Your task to perform on an android device: check the backup settings in the google photos Image 0: 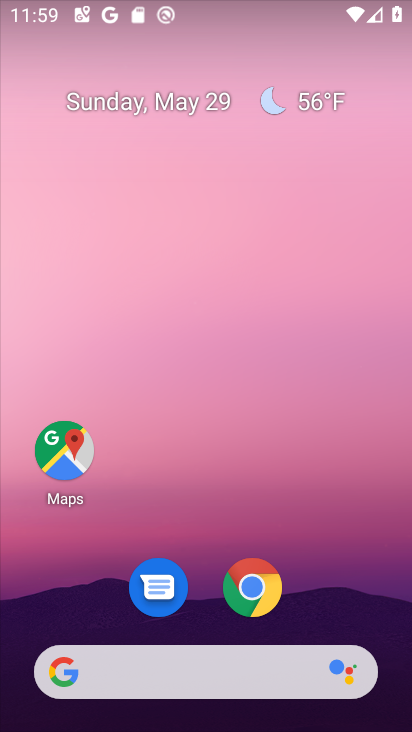
Step 0: drag from (368, 617) to (324, 336)
Your task to perform on an android device: check the backup settings in the google photos Image 1: 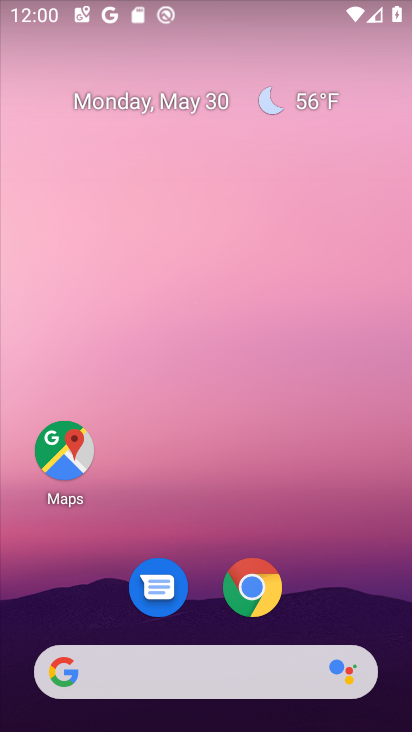
Step 1: drag from (354, 634) to (279, 231)
Your task to perform on an android device: check the backup settings in the google photos Image 2: 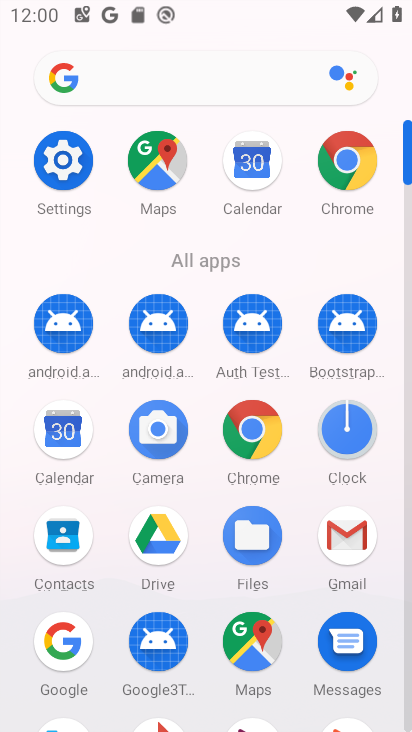
Step 2: click (405, 668)
Your task to perform on an android device: check the backup settings in the google photos Image 3: 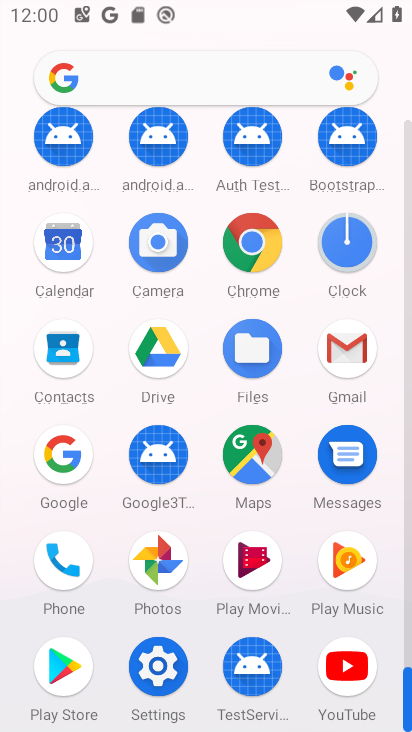
Step 3: click (176, 545)
Your task to perform on an android device: check the backup settings in the google photos Image 4: 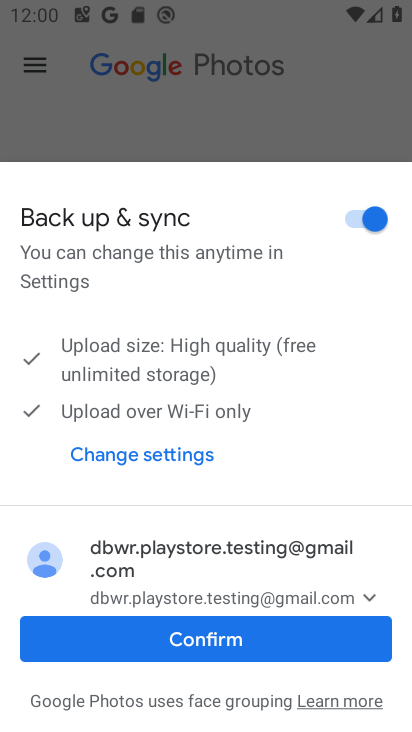
Step 4: click (248, 642)
Your task to perform on an android device: check the backup settings in the google photos Image 5: 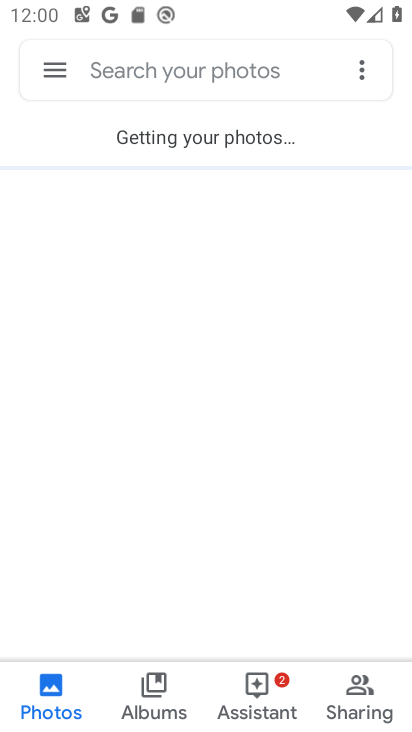
Step 5: click (51, 75)
Your task to perform on an android device: check the backup settings in the google photos Image 6: 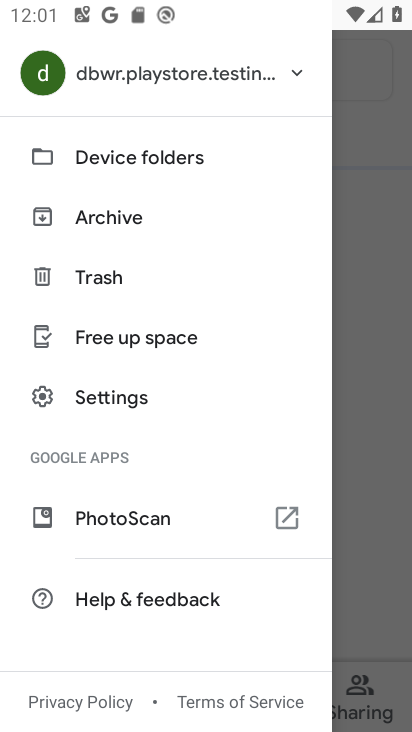
Step 6: click (151, 399)
Your task to perform on an android device: check the backup settings in the google photos Image 7: 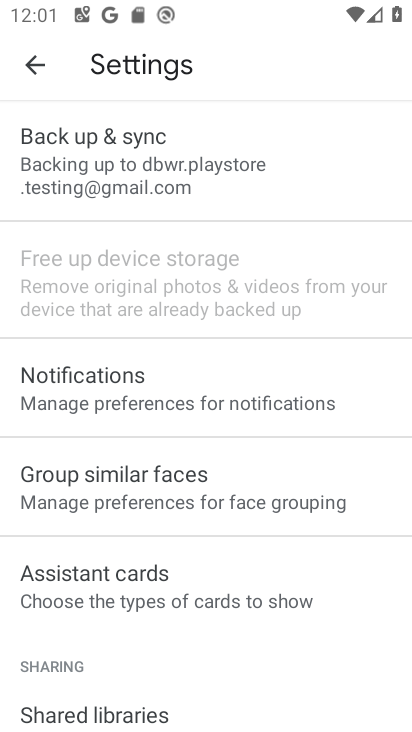
Step 7: click (213, 190)
Your task to perform on an android device: check the backup settings in the google photos Image 8: 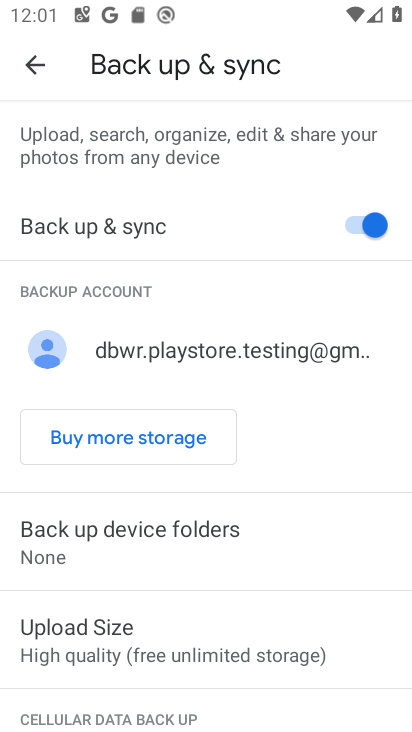
Step 8: task complete